Your task to perform on an android device: open app "Messenger Lite" Image 0: 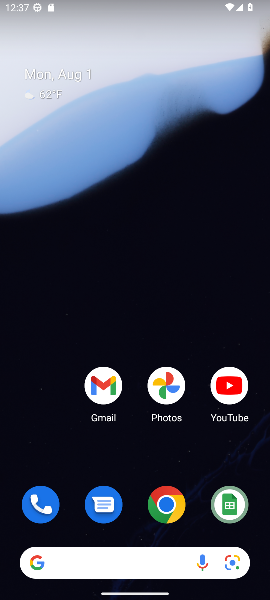
Step 0: drag from (195, 542) to (171, 23)
Your task to perform on an android device: open app "Messenger Lite" Image 1: 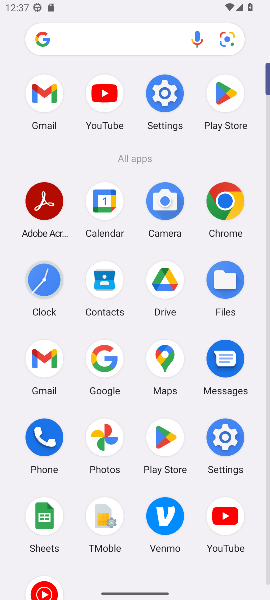
Step 1: click (229, 96)
Your task to perform on an android device: open app "Messenger Lite" Image 2: 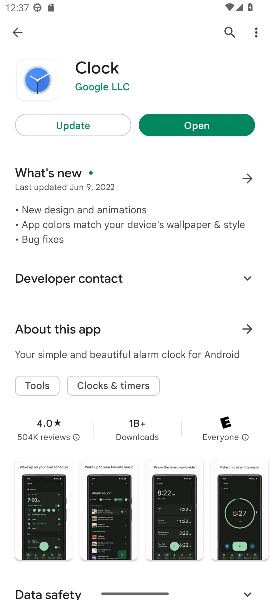
Step 2: click (224, 33)
Your task to perform on an android device: open app "Messenger Lite" Image 3: 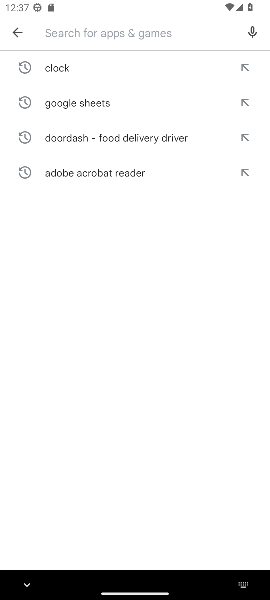
Step 3: type "messenger lite"
Your task to perform on an android device: open app "Messenger Lite" Image 4: 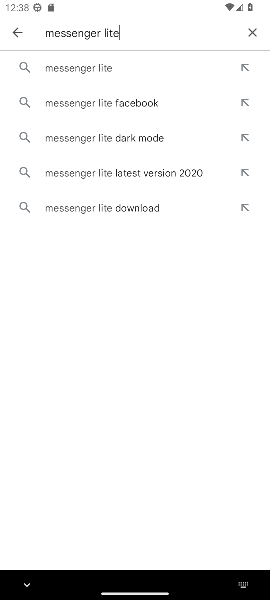
Step 4: click (46, 64)
Your task to perform on an android device: open app "Messenger Lite" Image 5: 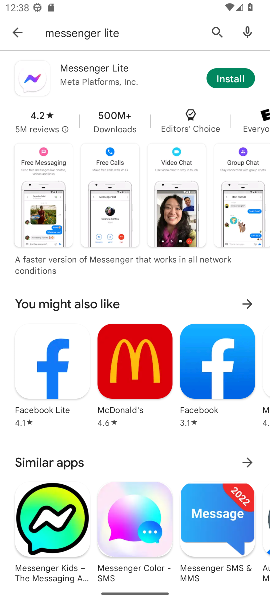
Step 5: task complete